Your task to perform on an android device: Show me the alarms in the clock app Image 0: 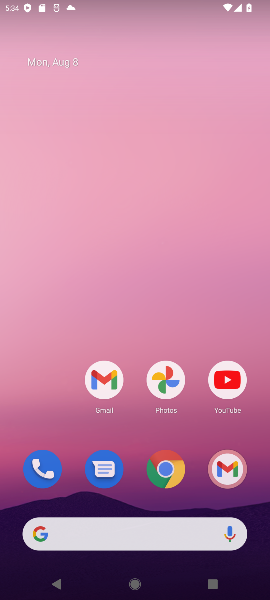
Step 0: press home button
Your task to perform on an android device: Show me the alarms in the clock app Image 1: 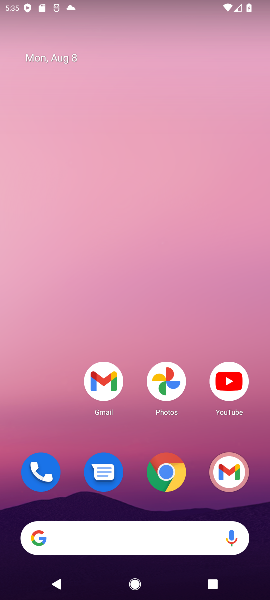
Step 1: drag from (134, 499) to (183, 62)
Your task to perform on an android device: Show me the alarms in the clock app Image 2: 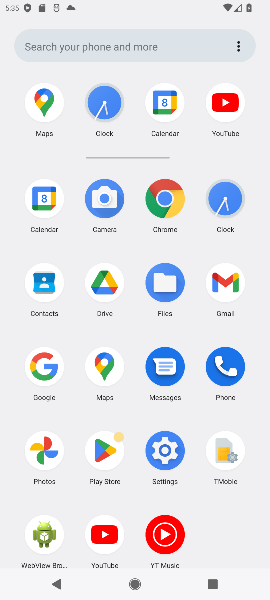
Step 2: click (109, 93)
Your task to perform on an android device: Show me the alarms in the clock app Image 3: 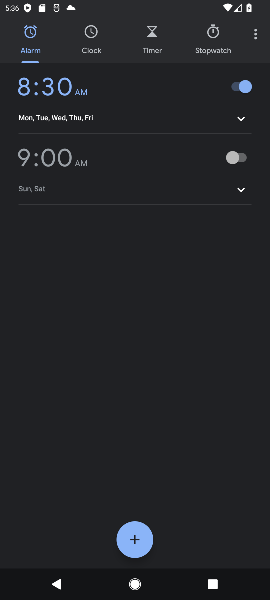
Step 3: task complete